Your task to perform on an android device: Open notification settings Image 0: 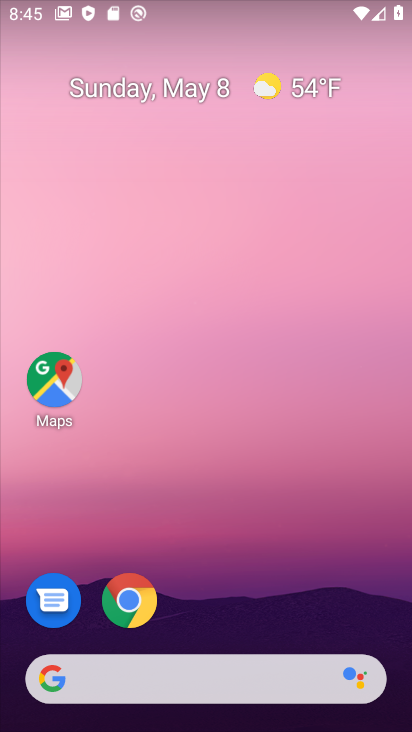
Step 0: click (234, 619)
Your task to perform on an android device: Open notification settings Image 1: 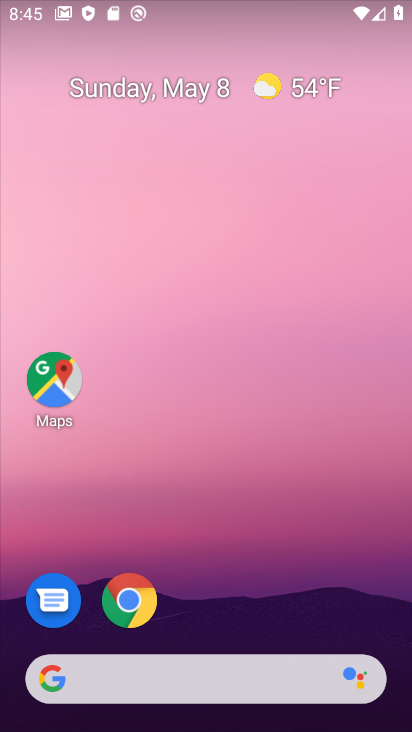
Step 1: click (283, 221)
Your task to perform on an android device: Open notification settings Image 2: 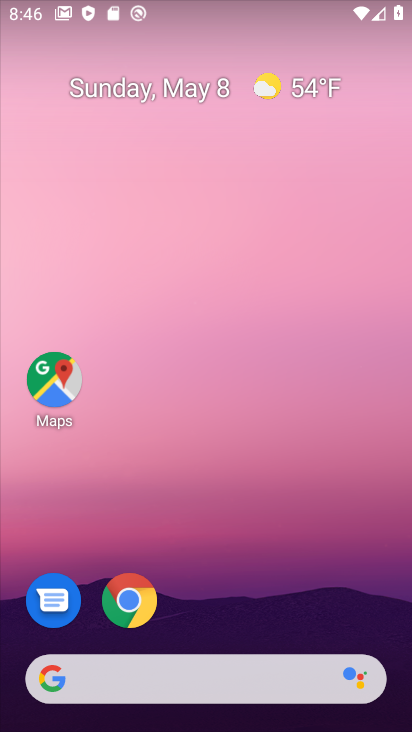
Step 2: drag from (194, 612) to (188, 10)
Your task to perform on an android device: Open notification settings Image 3: 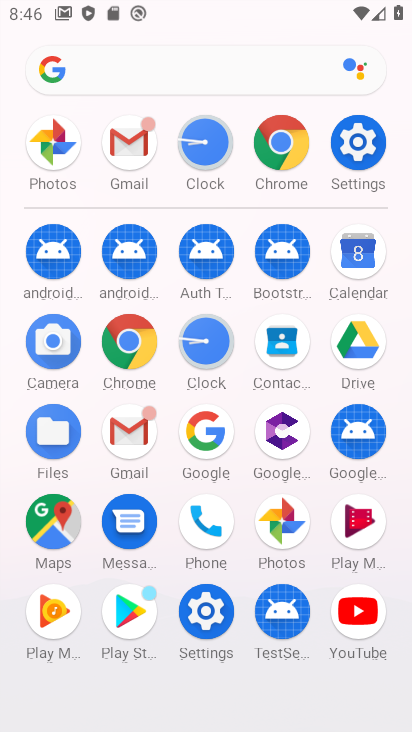
Step 3: click (360, 152)
Your task to perform on an android device: Open notification settings Image 4: 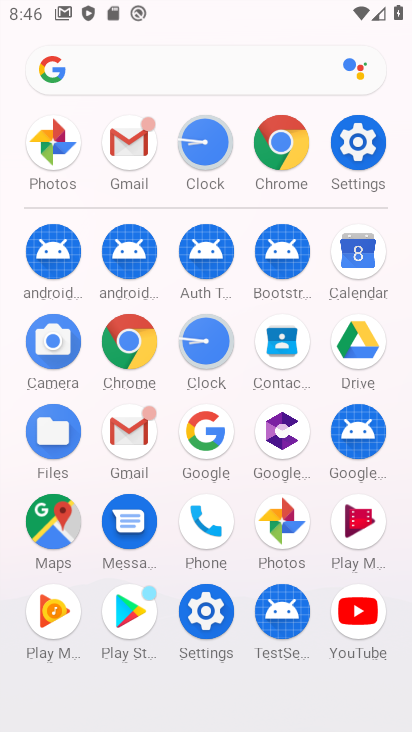
Step 4: click (360, 152)
Your task to perform on an android device: Open notification settings Image 5: 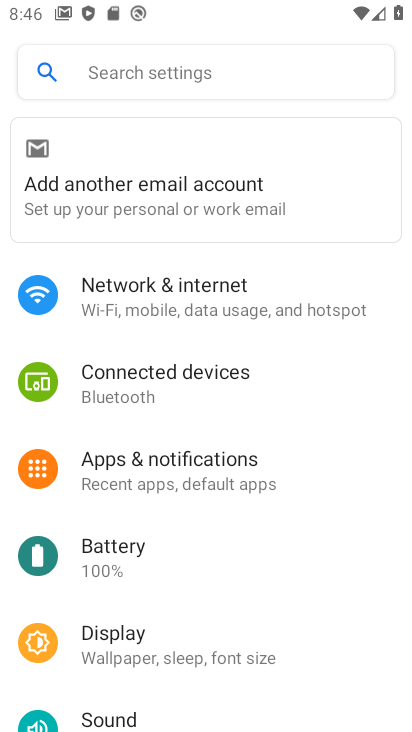
Step 5: click (250, 491)
Your task to perform on an android device: Open notification settings Image 6: 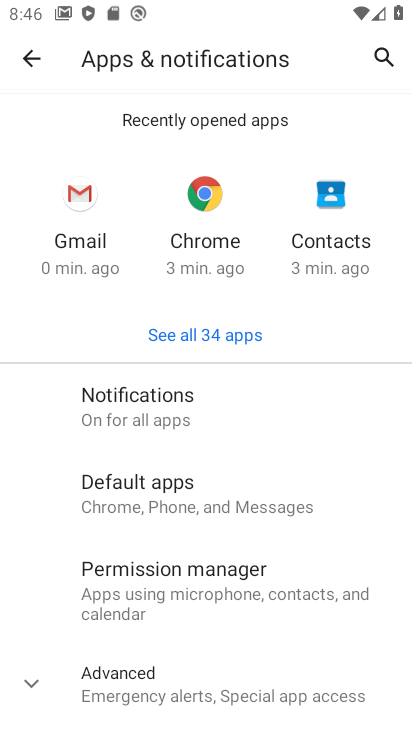
Step 6: click (181, 425)
Your task to perform on an android device: Open notification settings Image 7: 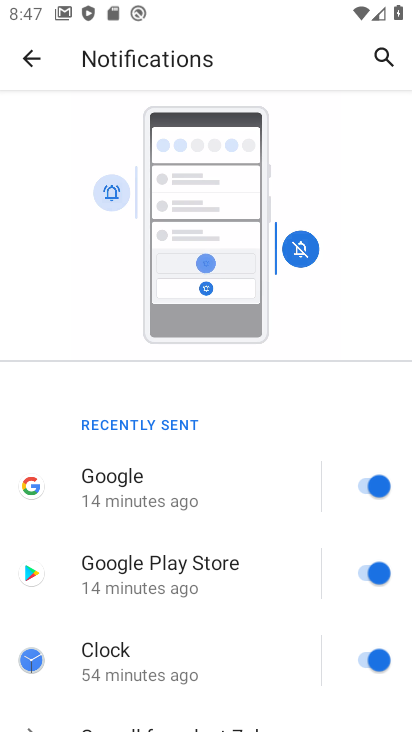
Step 7: press home button
Your task to perform on an android device: Open notification settings Image 8: 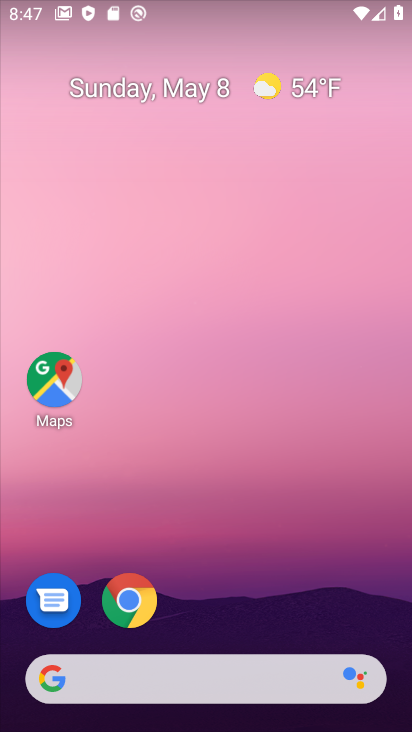
Step 8: drag from (197, 609) to (247, 208)
Your task to perform on an android device: Open notification settings Image 9: 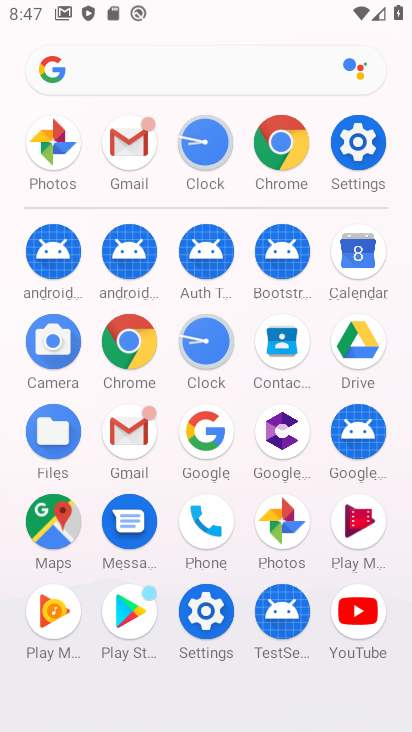
Step 9: click (358, 141)
Your task to perform on an android device: Open notification settings Image 10: 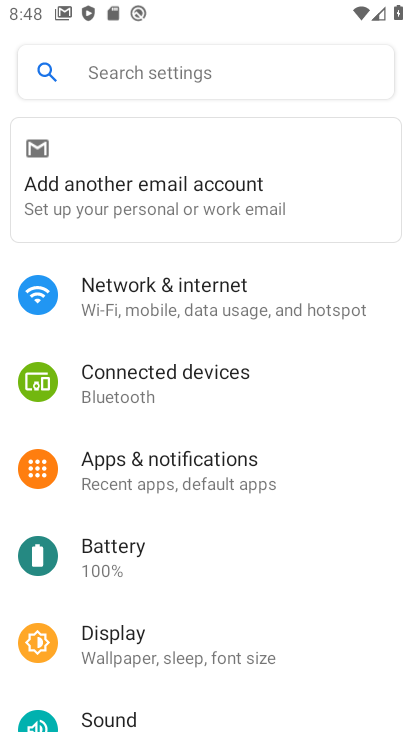
Step 10: drag from (147, 597) to (295, 88)
Your task to perform on an android device: Open notification settings Image 11: 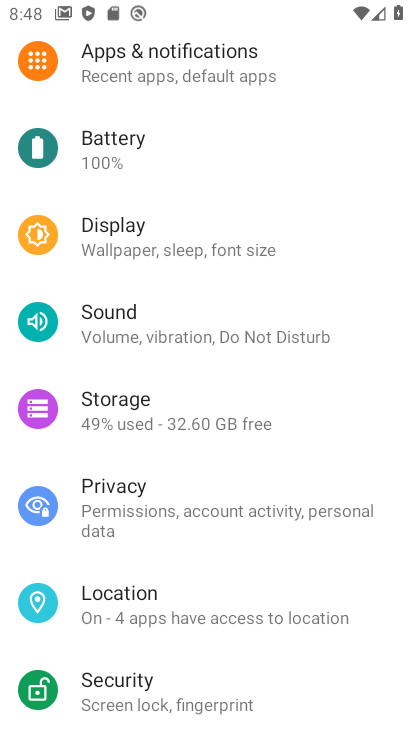
Step 11: click (214, 84)
Your task to perform on an android device: Open notification settings Image 12: 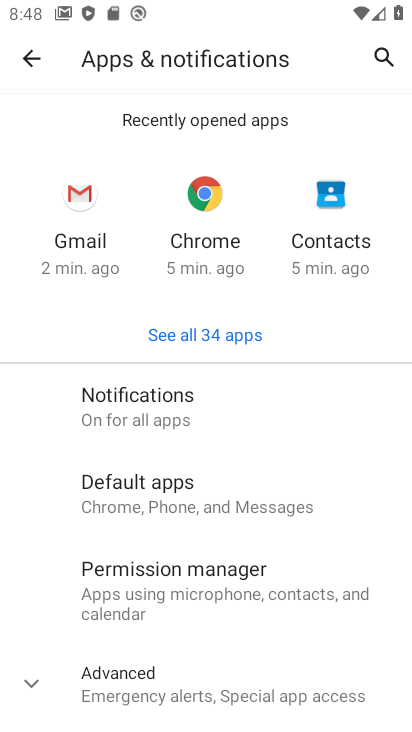
Step 12: task complete